Your task to perform on an android device: open the mobile data screen to see how much data has been used Image 0: 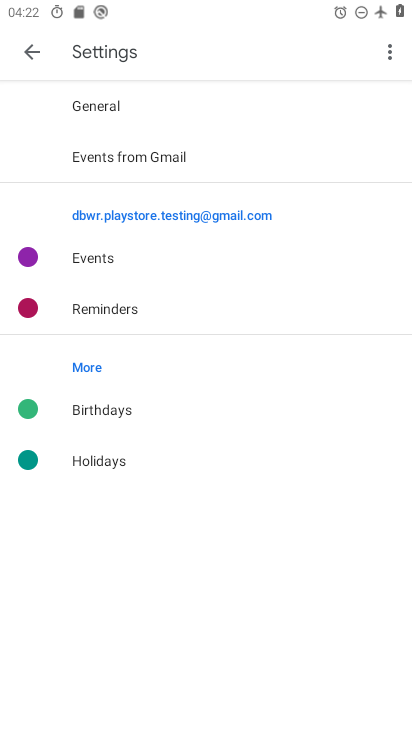
Step 0: press home button
Your task to perform on an android device: open the mobile data screen to see how much data has been used Image 1: 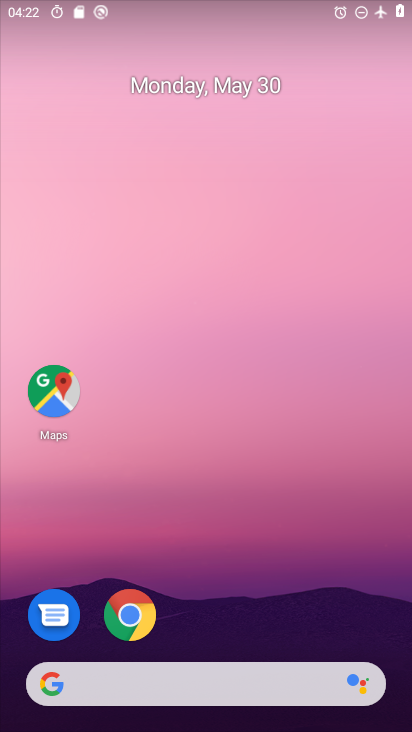
Step 1: drag from (226, 560) to (218, 40)
Your task to perform on an android device: open the mobile data screen to see how much data has been used Image 2: 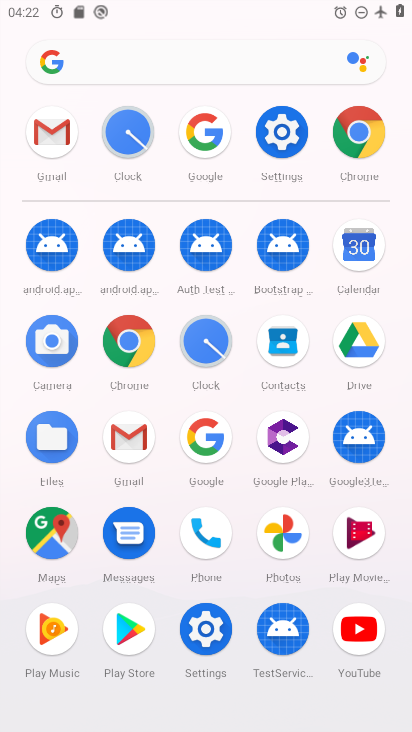
Step 2: click (280, 133)
Your task to perform on an android device: open the mobile data screen to see how much data has been used Image 3: 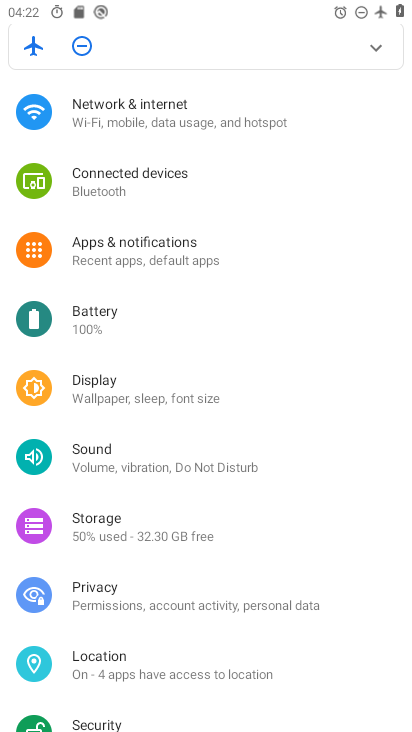
Step 3: click (210, 107)
Your task to perform on an android device: open the mobile data screen to see how much data has been used Image 4: 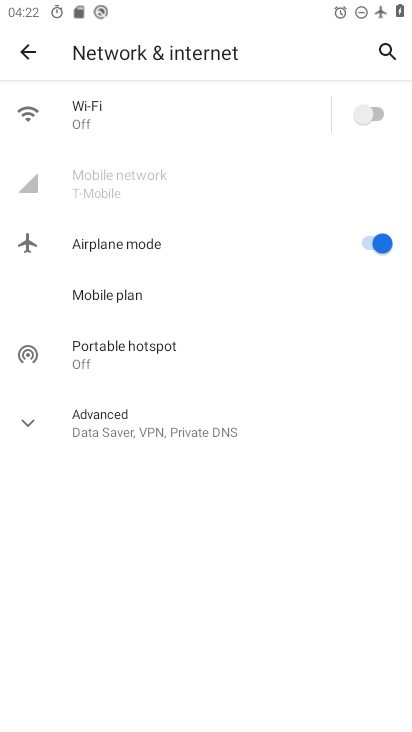
Step 4: click (136, 184)
Your task to perform on an android device: open the mobile data screen to see how much data has been used Image 5: 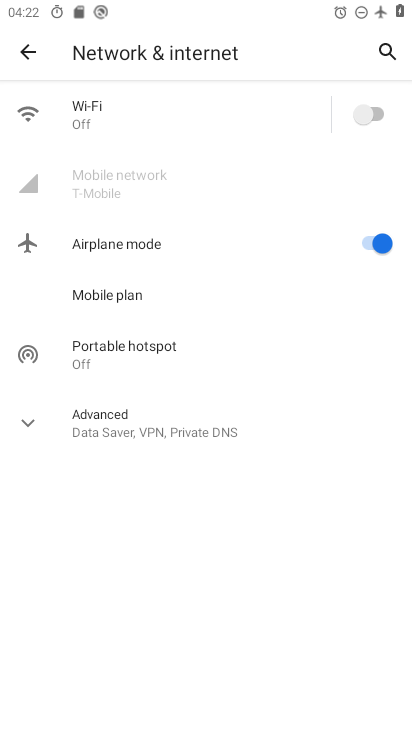
Step 5: task complete